Your task to perform on an android device: change the clock style Image 0: 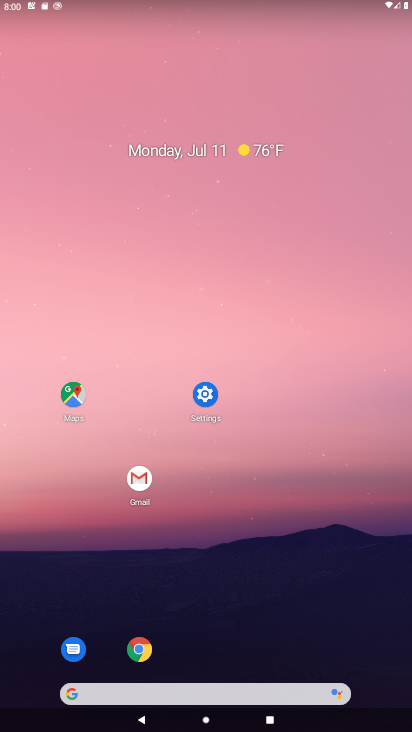
Step 0: drag from (390, 725) to (320, 156)
Your task to perform on an android device: change the clock style Image 1: 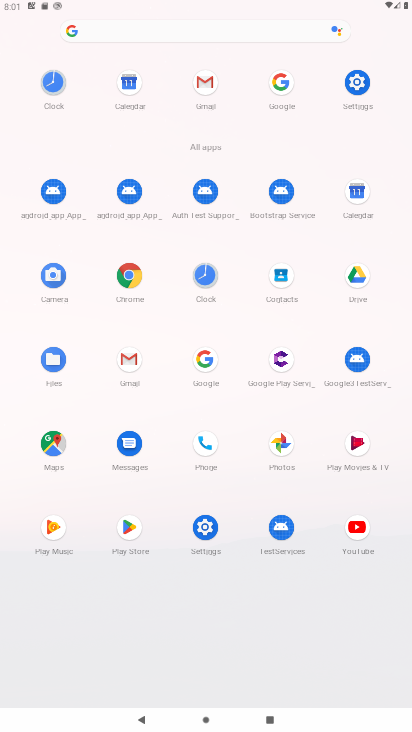
Step 1: click (210, 271)
Your task to perform on an android device: change the clock style Image 2: 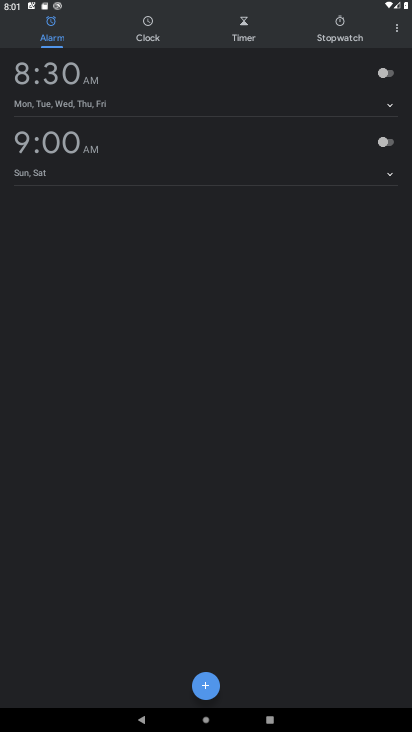
Step 2: click (393, 33)
Your task to perform on an android device: change the clock style Image 3: 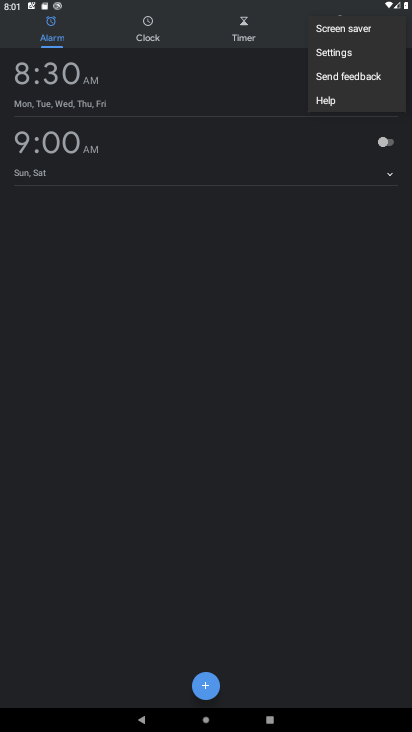
Step 3: click (355, 48)
Your task to perform on an android device: change the clock style Image 4: 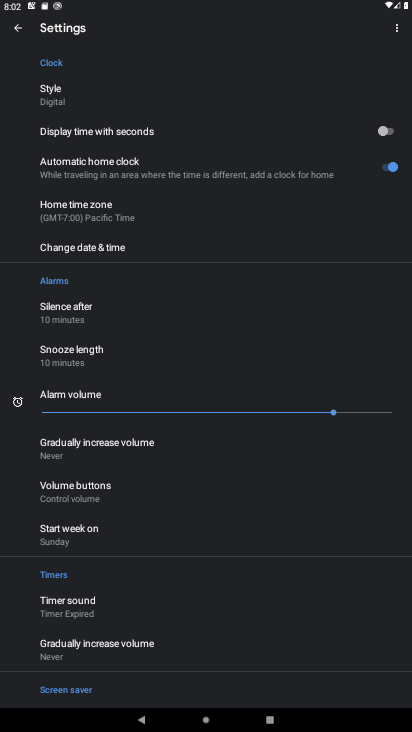
Step 4: click (53, 91)
Your task to perform on an android device: change the clock style Image 5: 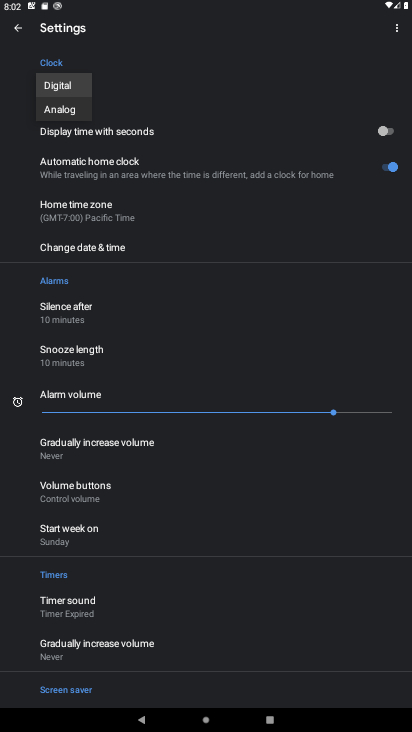
Step 5: click (52, 110)
Your task to perform on an android device: change the clock style Image 6: 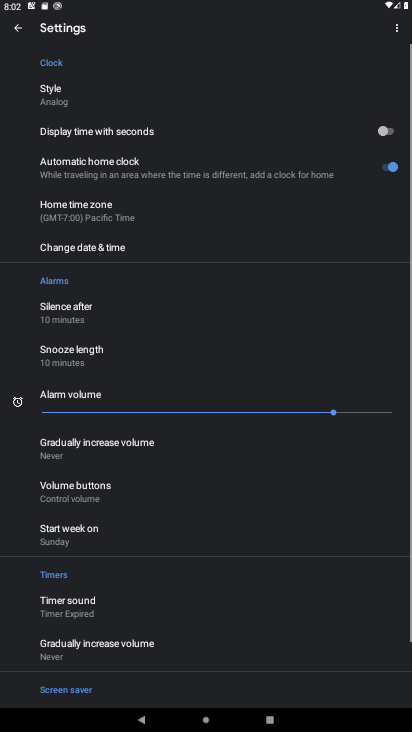
Step 6: task complete